Your task to perform on an android device: create a new album in the google photos Image 0: 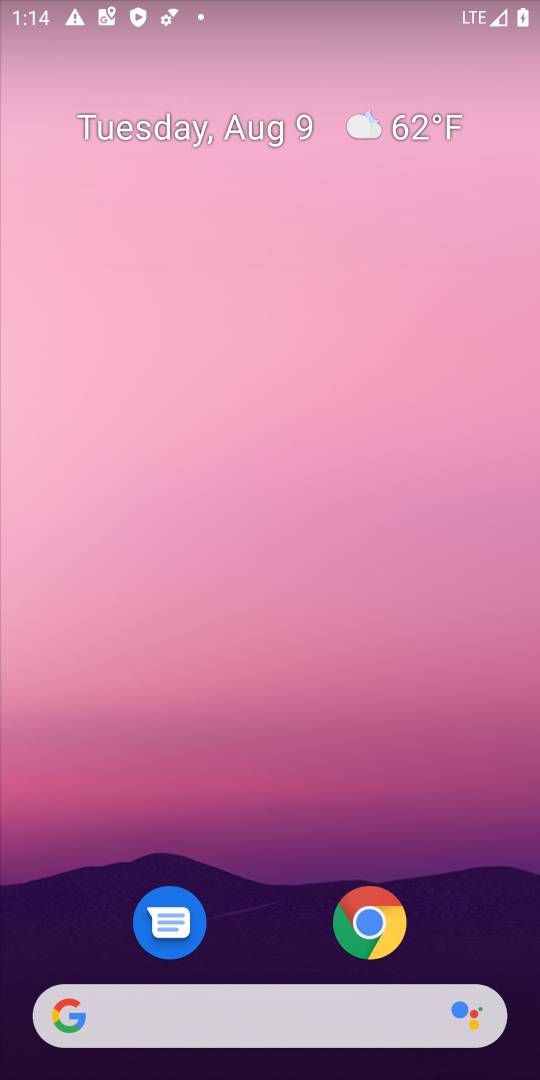
Step 0: drag from (293, 967) to (232, 92)
Your task to perform on an android device: create a new album in the google photos Image 1: 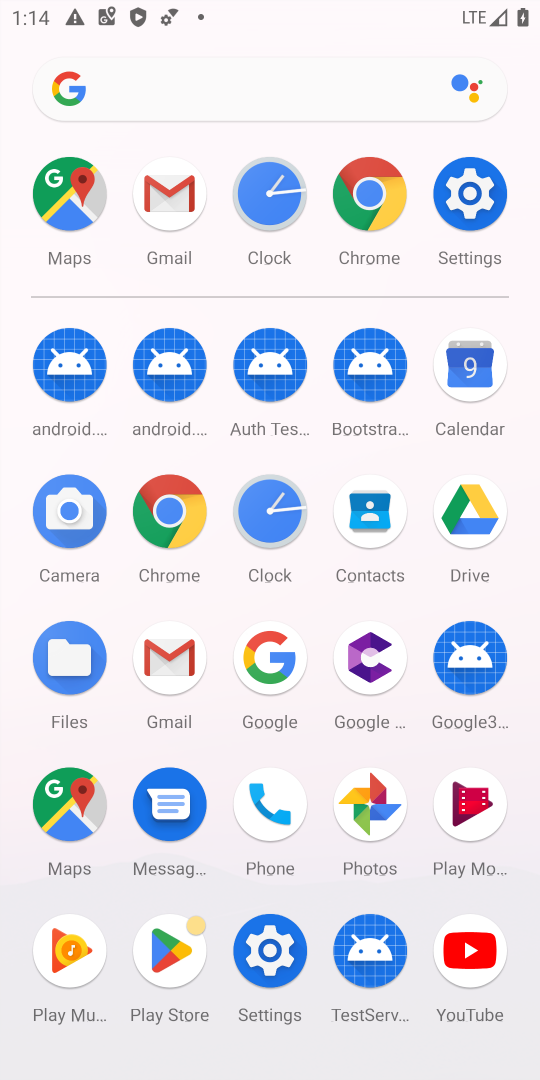
Step 1: click (356, 815)
Your task to perform on an android device: create a new album in the google photos Image 2: 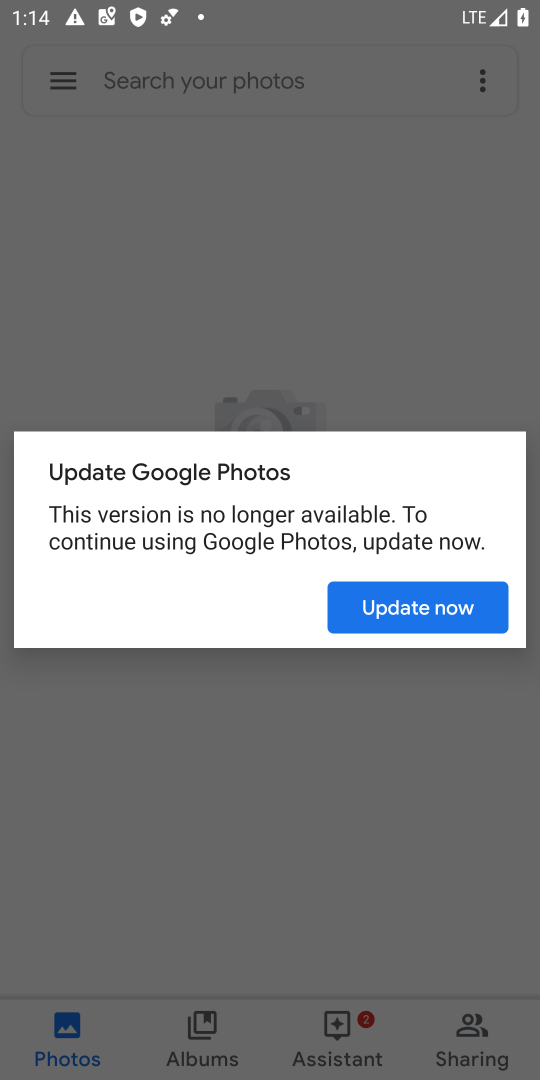
Step 2: click (391, 815)
Your task to perform on an android device: create a new album in the google photos Image 3: 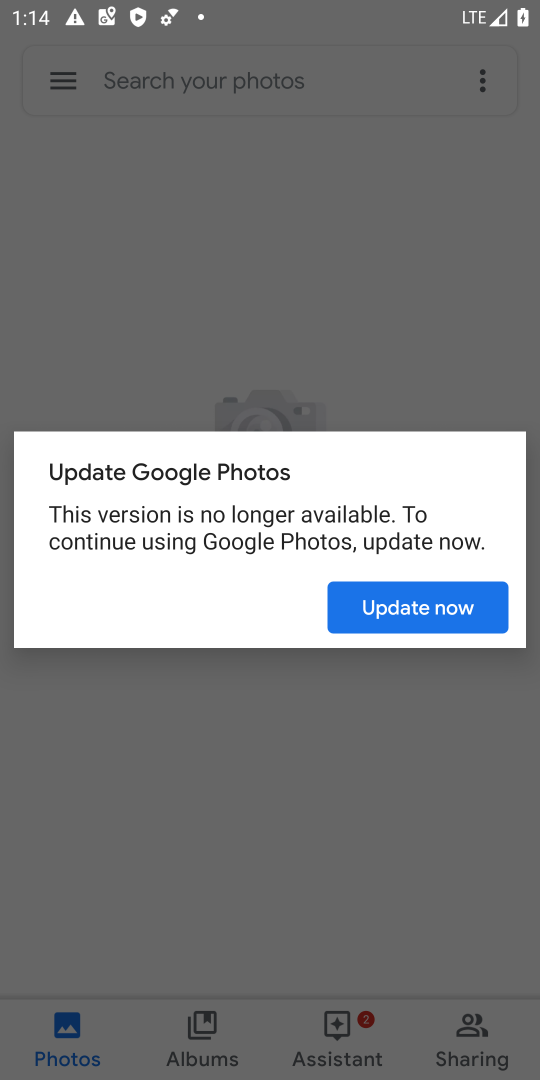
Step 3: click (431, 607)
Your task to perform on an android device: create a new album in the google photos Image 4: 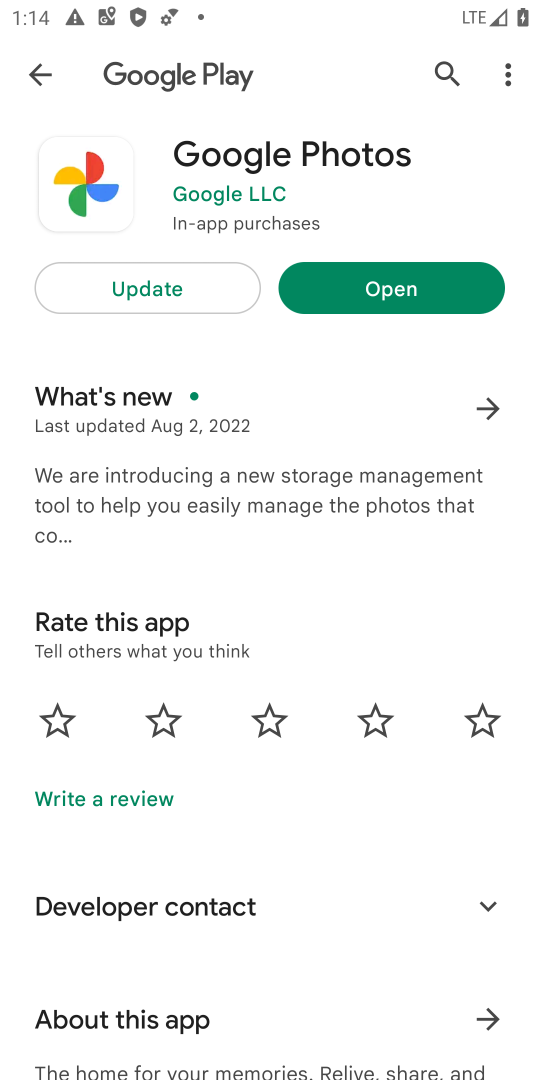
Step 4: click (330, 289)
Your task to perform on an android device: create a new album in the google photos Image 5: 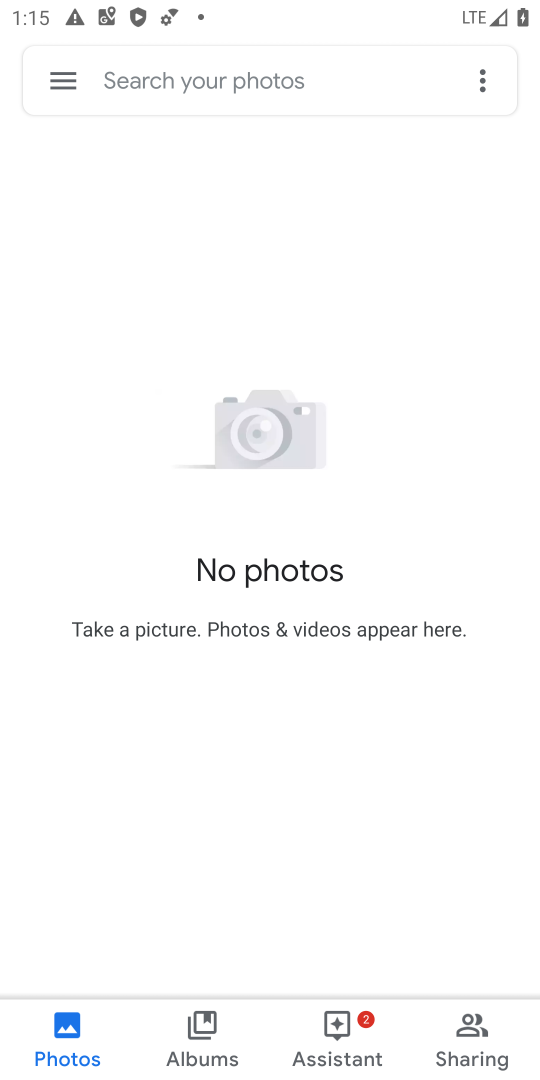
Step 5: click (211, 1023)
Your task to perform on an android device: create a new album in the google photos Image 6: 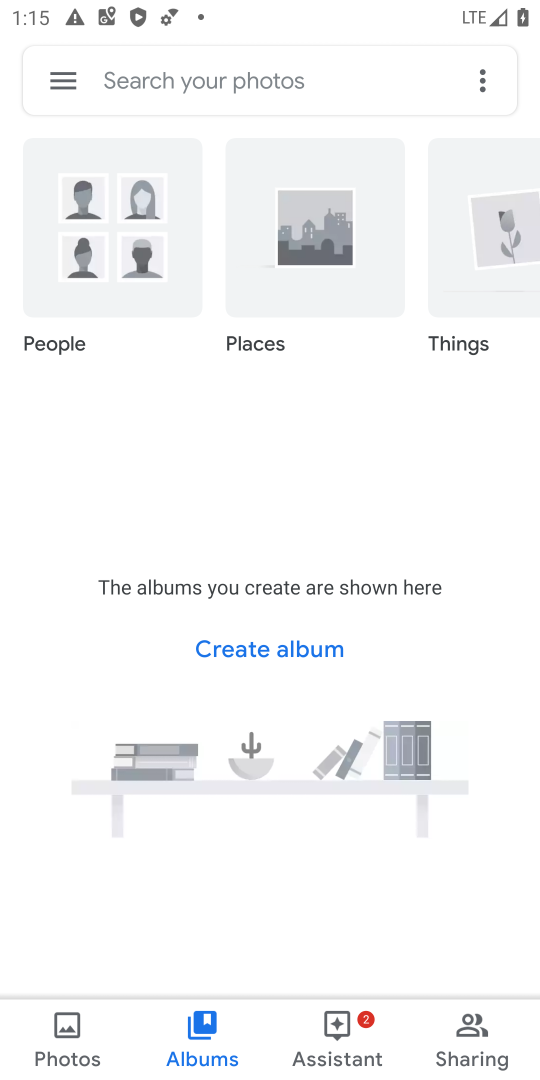
Step 6: task complete